Your task to perform on an android device: Toggle the flashlight Image 0: 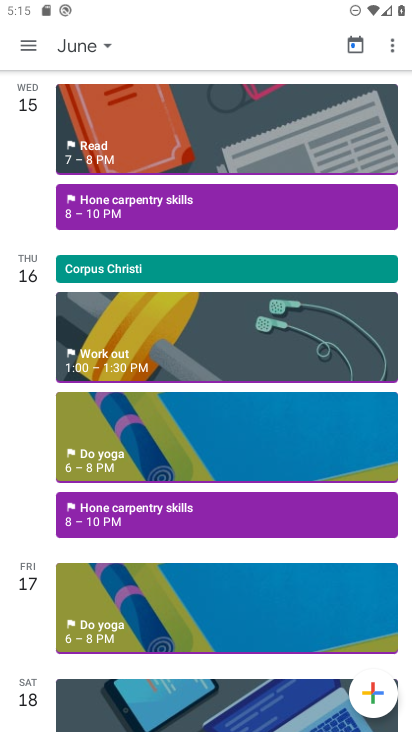
Step 0: press home button
Your task to perform on an android device: Toggle the flashlight Image 1: 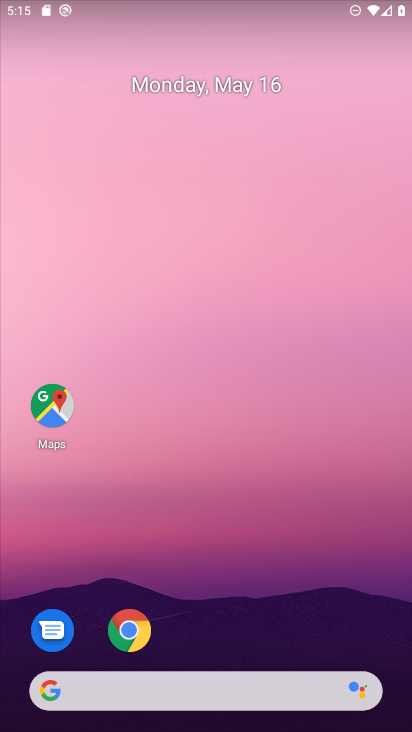
Step 1: task complete